Your task to perform on an android device: Search for pizza restaurants on Maps Image 0: 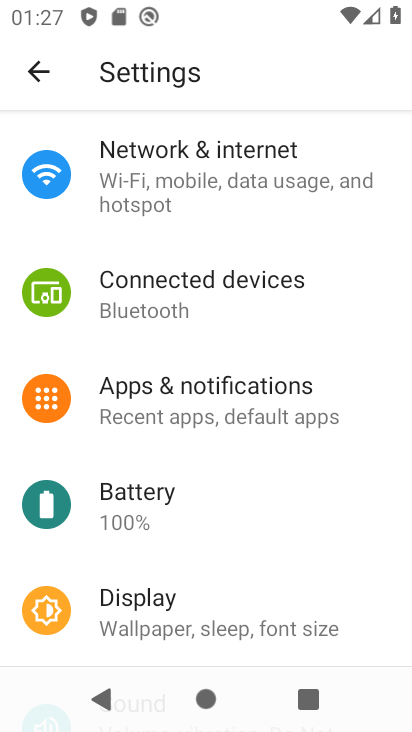
Step 0: press home button
Your task to perform on an android device: Search for pizza restaurants on Maps Image 1: 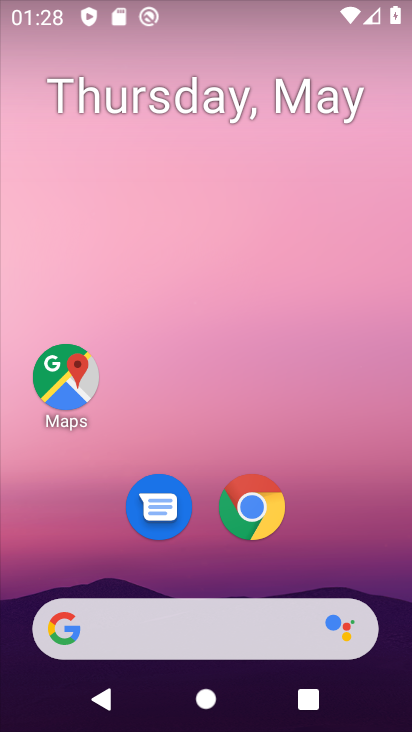
Step 1: click (64, 373)
Your task to perform on an android device: Search for pizza restaurants on Maps Image 2: 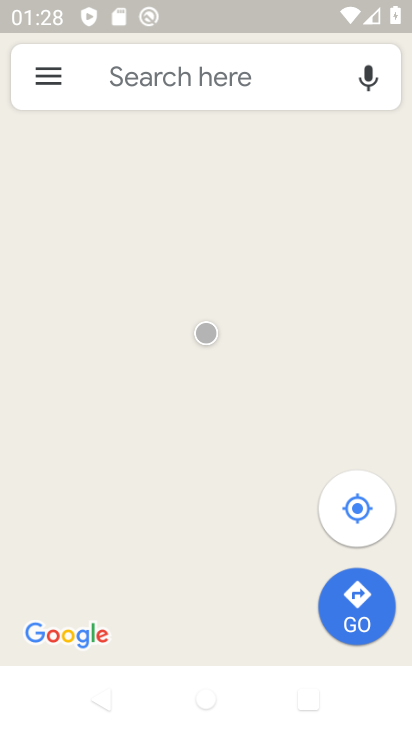
Step 2: click (192, 81)
Your task to perform on an android device: Search for pizza restaurants on Maps Image 3: 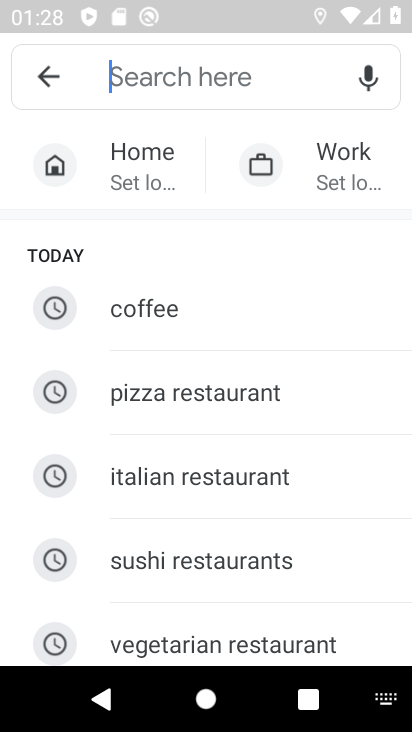
Step 3: click (149, 68)
Your task to perform on an android device: Search for pizza restaurants on Maps Image 4: 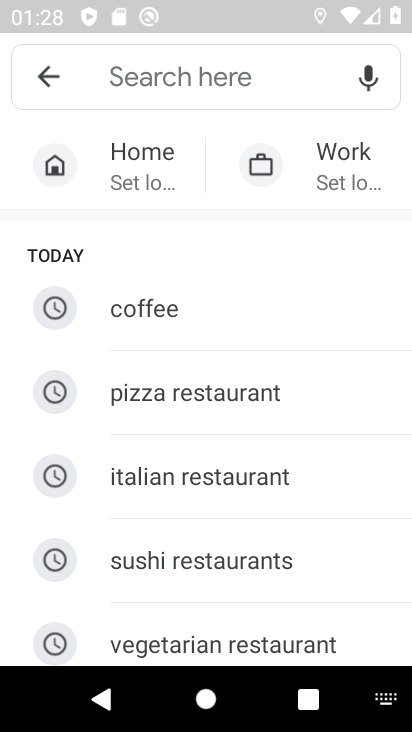
Step 4: type " pizza restaurant"
Your task to perform on an android device: Search for pizza restaurants on Maps Image 5: 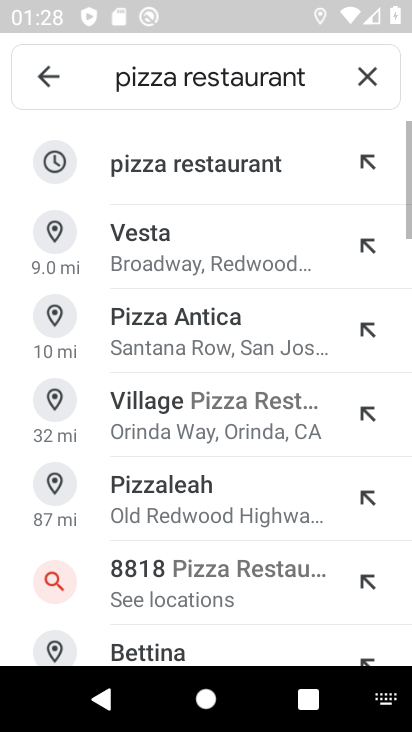
Step 5: click (196, 160)
Your task to perform on an android device: Search for pizza restaurants on Maps Image 6: 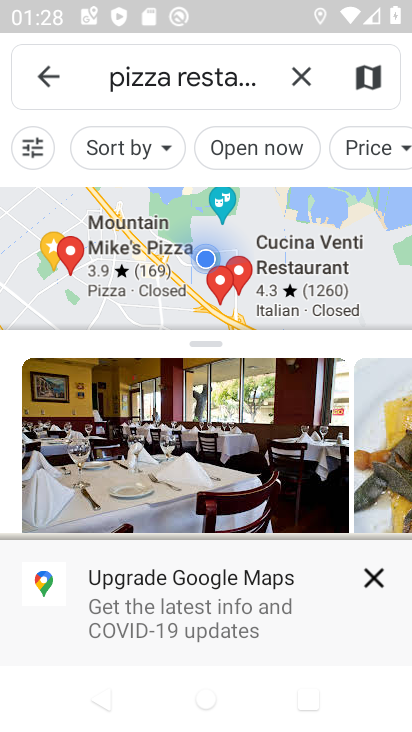
Step 6: task complete